Your task to perform on an android device: Open CNN.com Image 0: 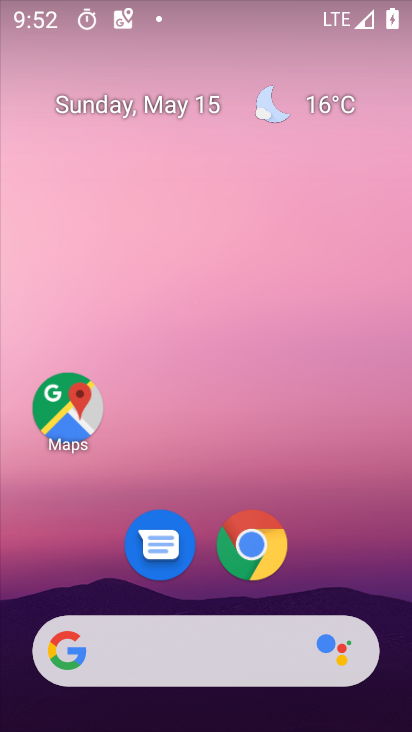
Step 0: click (253, 541)
Your task to perform on an android device: Open CNN.com Image 1: 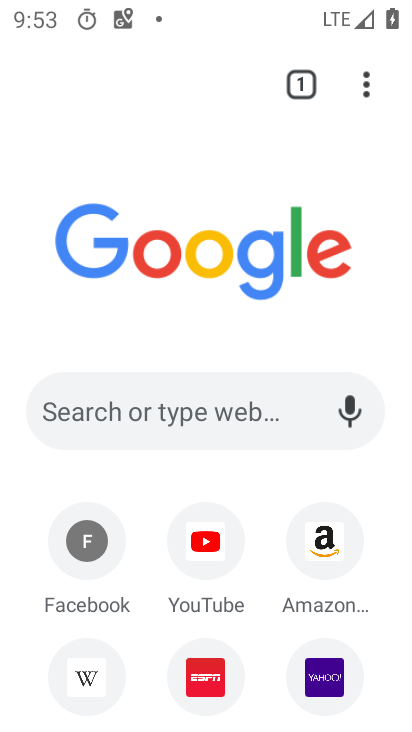
Step 1: click (194, 403)
Your task to perform on an android device: Open CNN.com Image 2: 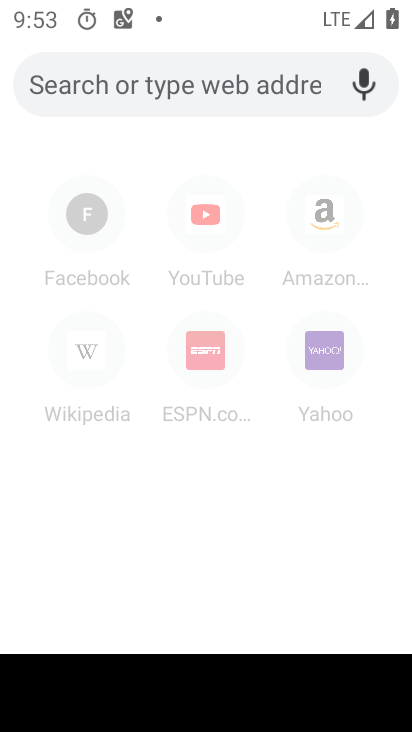
Step 2: type "CNN.com"
Your task to perform on an android device: Open CNN.com Image 3: 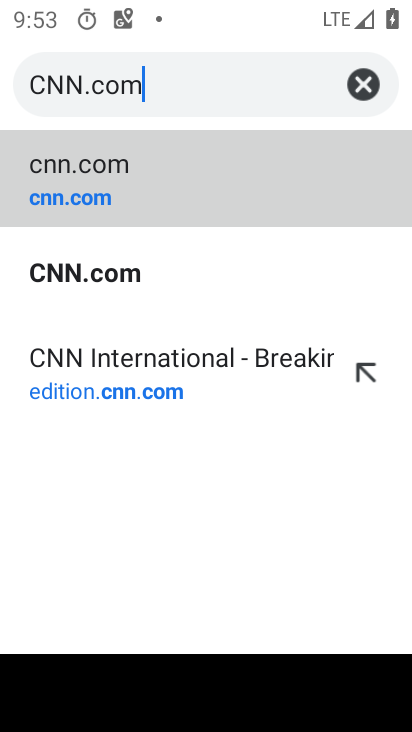
Step 3: click (100, 282)
Your task to perform on an android device: Open CNN.com Image 4: 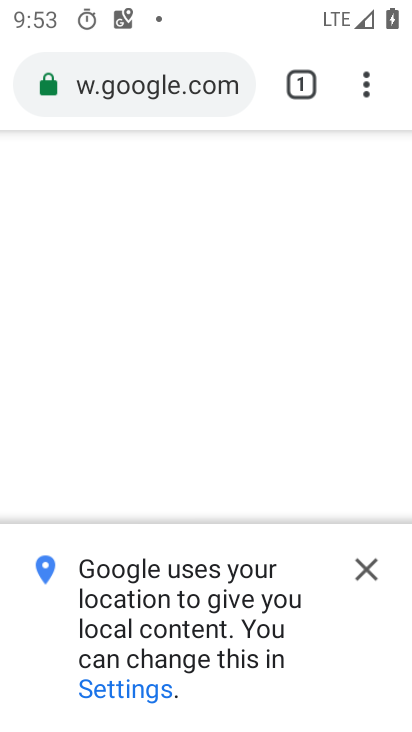
Step 4: click (368, 571)
Your task to perform on an android device: Open CNN.com Image 5: 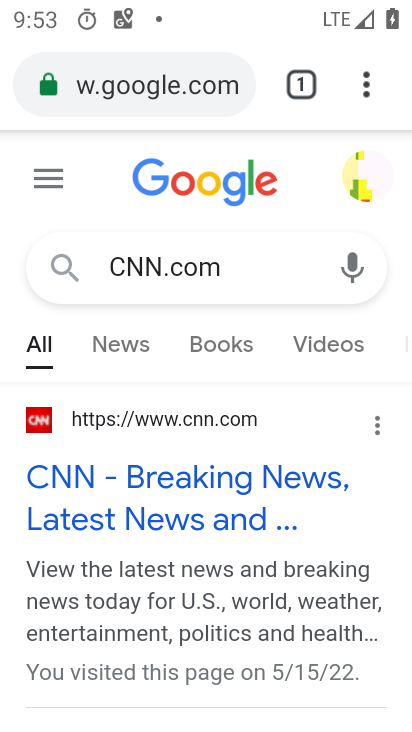
Step 5: click (194, 475)
Your task to perform on an android device: Open CNN.com Image 6: 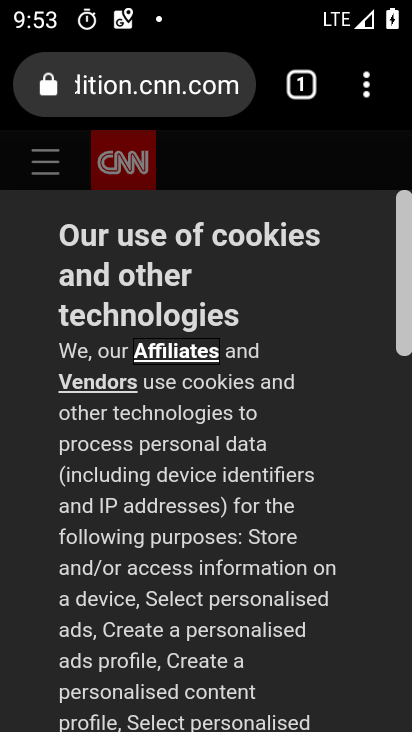
Step 6: task complete